Your task to perform on an android device: open a bookmark in the chrome app Image 0: 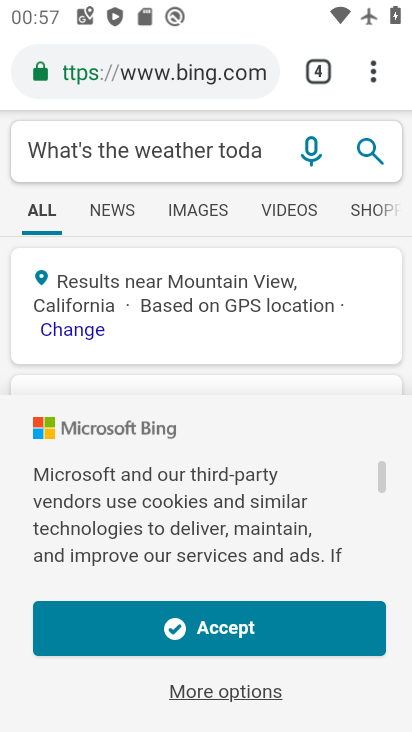
Step 0: click (369, 69)
Your task to perform on an android device: open a bookmark in the chrome app Image 1: 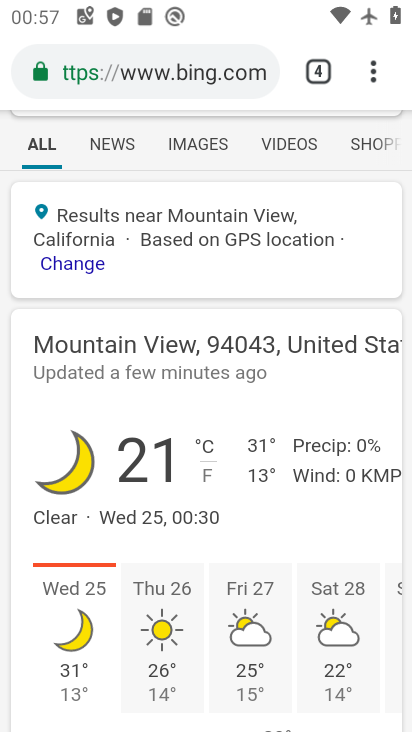
Step 1: click (360, 74)
Your task to perform on an android device: open a bookmark in the chrome app Image 2: 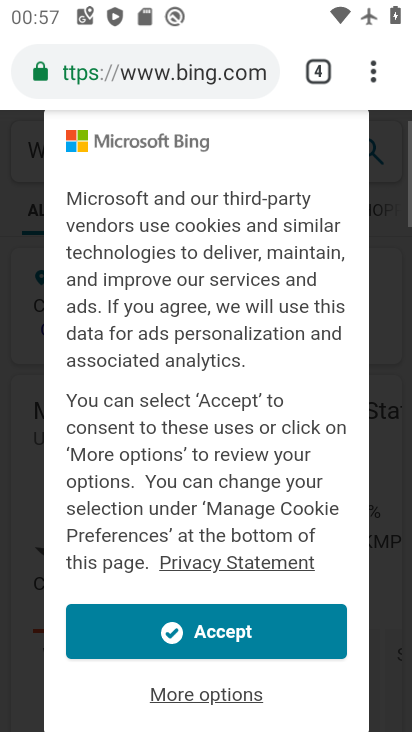
Step 2: click (359, 65)
Your task to perform on an android device: open a bookmark in the chrome app Image 3: 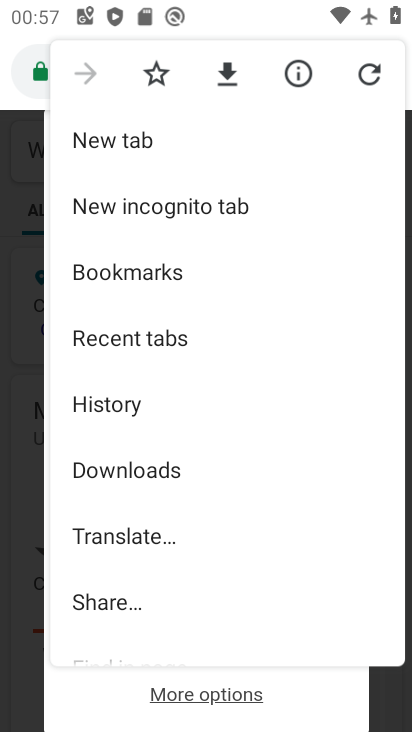
Step 3: click (152, 269)
Your task to perform on an android device: open a bookmark in the chrome app Image 4: 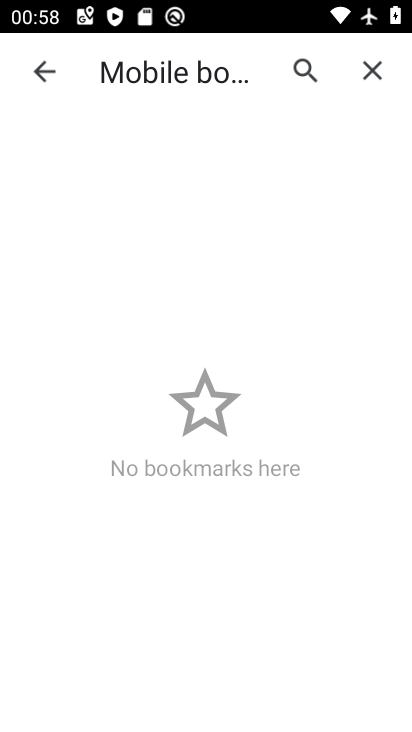
Step 4: task complete